Your task to perform on an android device: open a bookmark in the chrome app Image 0: 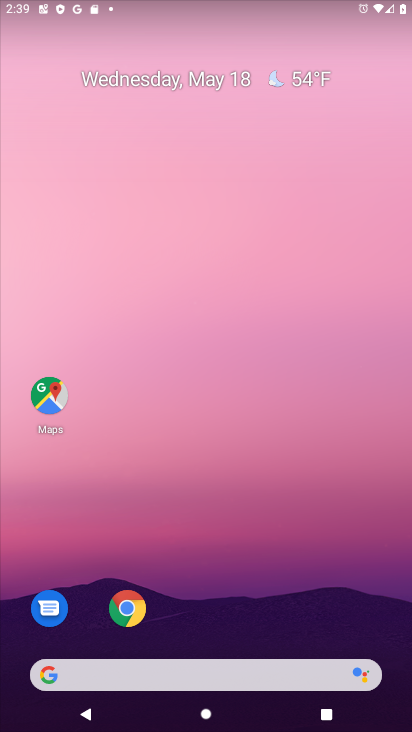
Step 0: click (126, 607)
Your task to perform on an android device: open a bookmark in the chrome app Image 1: 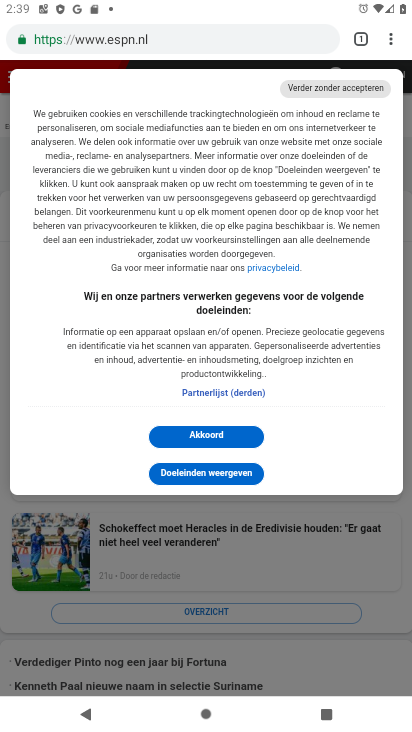
Step 1: click (391, 39)
Your task to perform on an android device: open a bookmark in the chrome app Image 2: 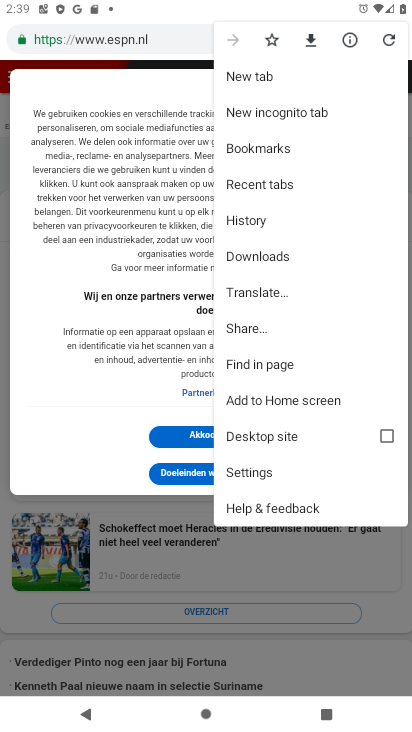
Step 2: click (258, 155)
Your task to perform on an android device: open a bookmark in the chrome app Image 3: 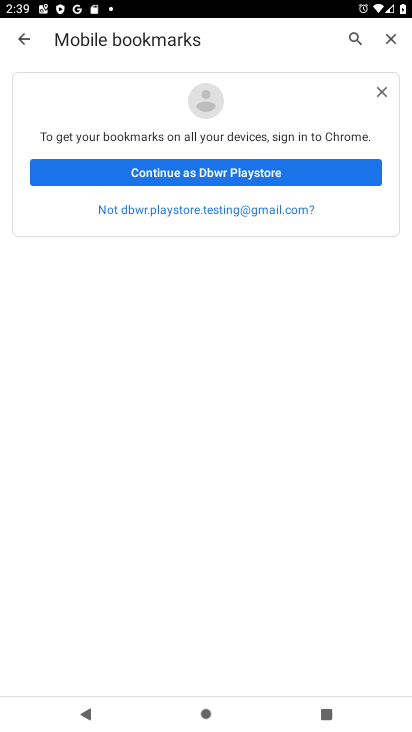
Step 3: click (213, 175)
Your task to perform on an android device: open a bookmark in the chrome app Image 4: 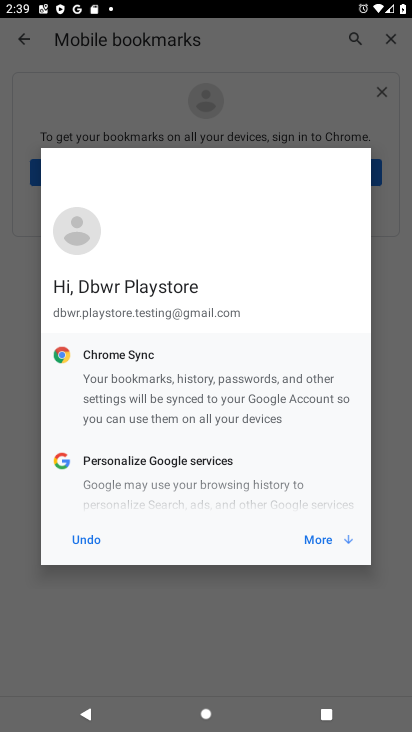
Step 4: click (319, 536)
Your task to perform on an android device: open a bookmark in the chrome app Image 5: 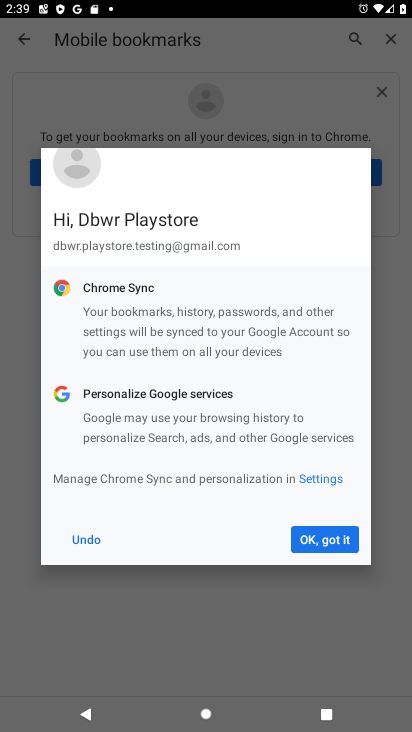
Step 5: click (322, 536)
Your task to perform on an android device: open a bookmark in the chrome app Image 6: 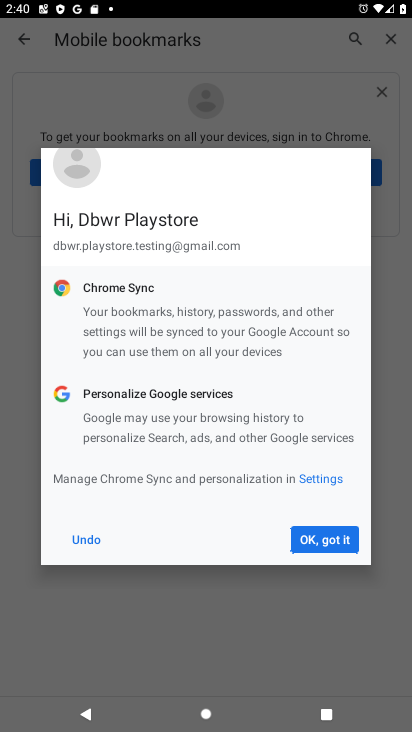
Step 6: click (304, 538)
Your task to perform on an android device: open a bookmark in the chrome app Image 7: 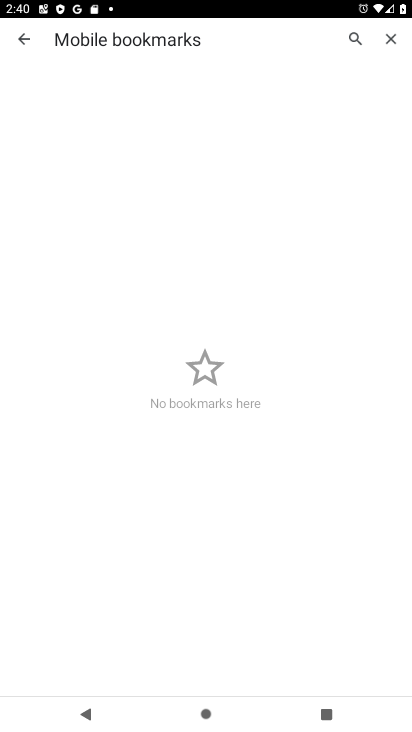
Step 7: task complete